Your task to perform on an android device: Do I have any events this weekend? Image 0: 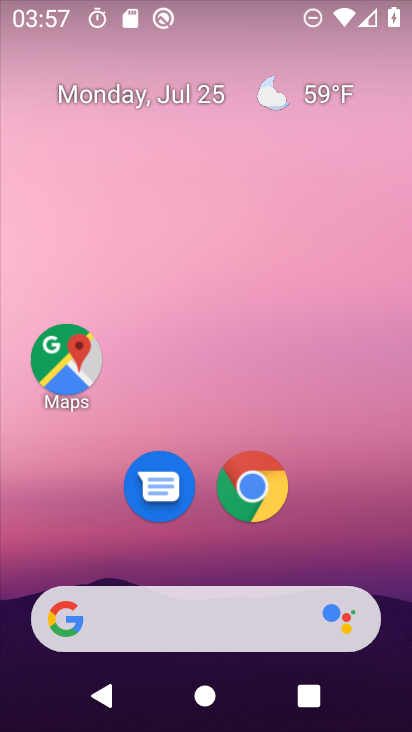
Step 0: drag from (147, 556) to (231, 6)
Your task to perform on an android device: Do I have any events this weekend? Image 1: 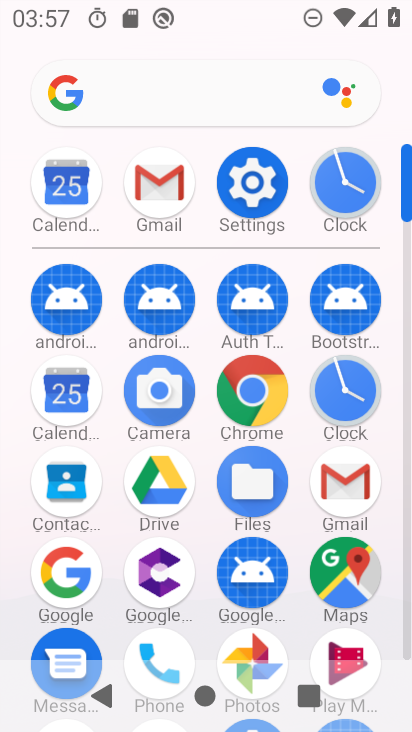
Step 1: click (65, 384)
Your task to perform on an android device: Do I have any events this weekend? Image 2: 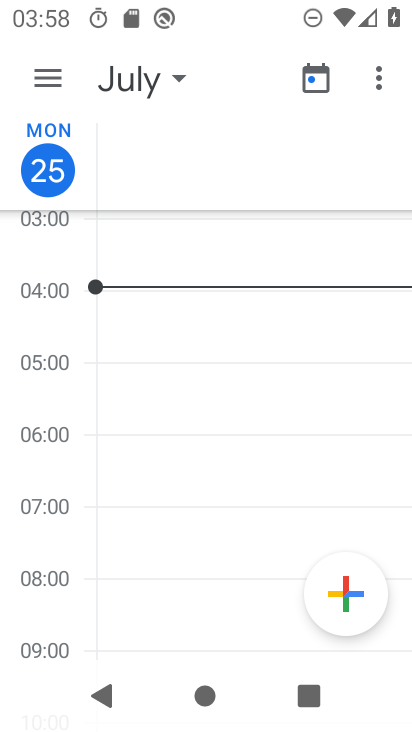
Step 2: press back button
Your task to perform on an android device: Do I have any events this weekend? Image 3: 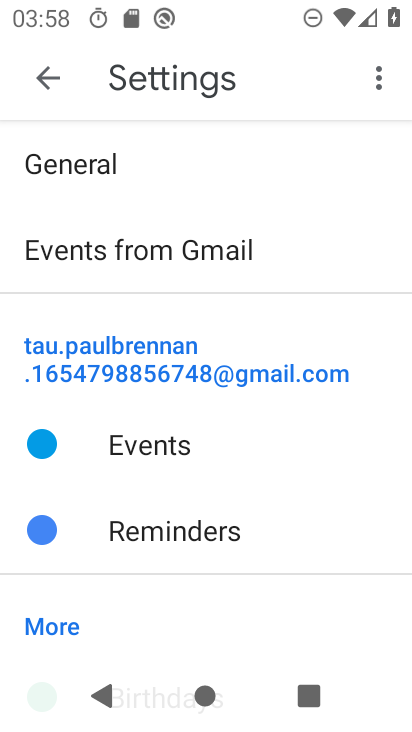
Step 3: click (50, 77)
Your task to perform on an android device: Do I have any events this weekend? Image 4: 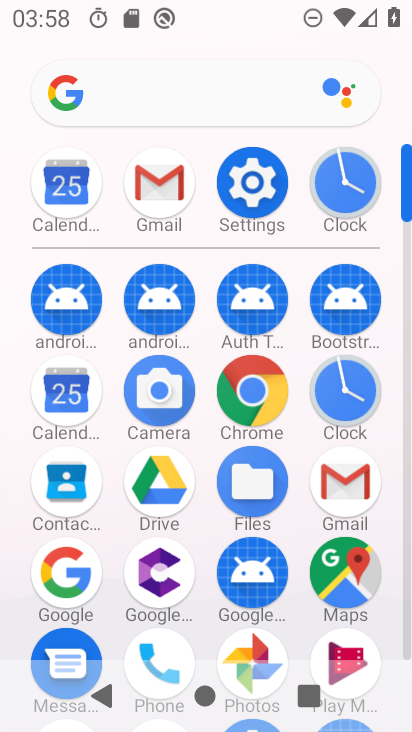
Step 4: click (80, 389)
Your task to perform on an android device: Do I have any events this weekend? Image 5: 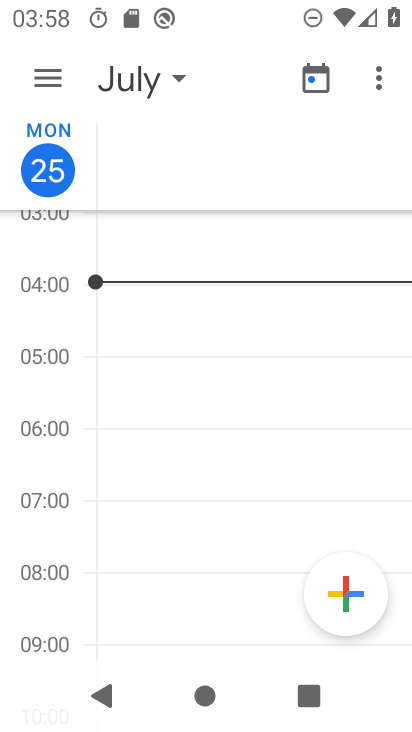
Step 5: click (34, 81)
Your task to perform on an android device: Do I have any events this weekend? Image 6: 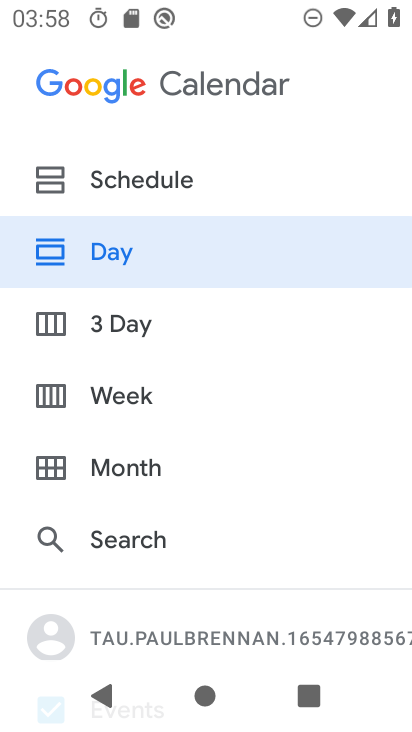
Step 6: click (107, 180)
Your task to perform on an android device: Do I have any events this weekend? Image 7: 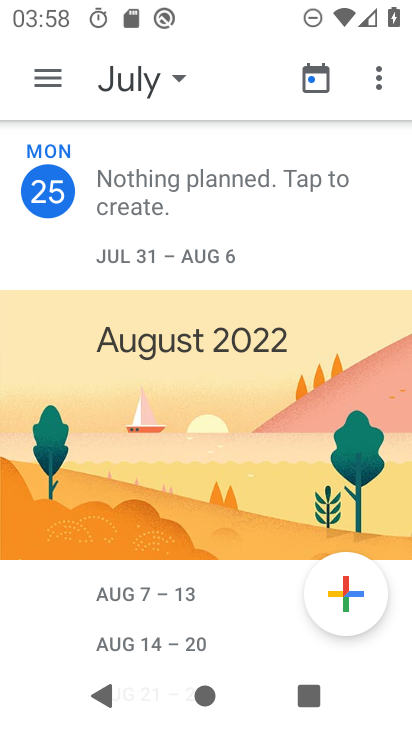
Step 7: click (159, 71)
Your task to perform on an android device: Do I have any events this weekend? Image 8: 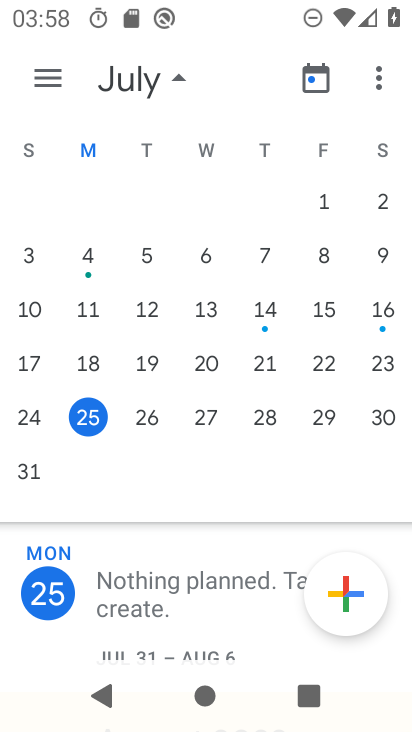
Step 8: click (380, 419)
Your task to perform on an android device: Do I have any events this weekend? Image 9: 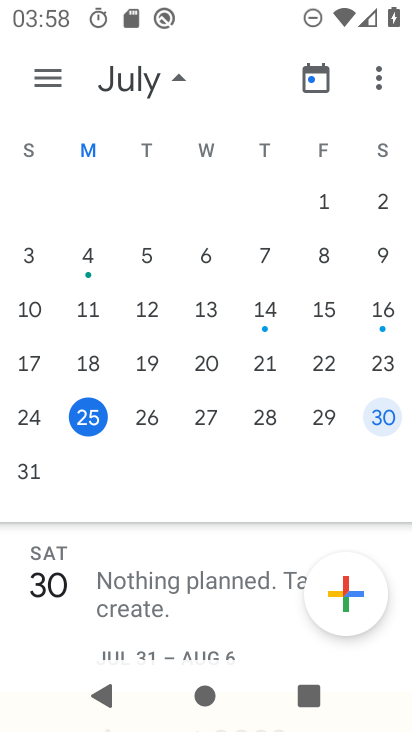
Step 9: task complete